Your task to perform on an android device: snooze an email in the gmail app Image 0: 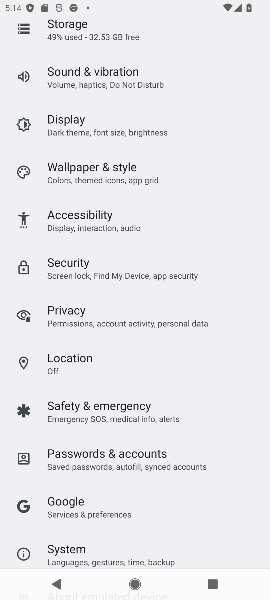
Step 0: press home button
Your task to perform on an android device: snooze an email in the gmail app Image 1: 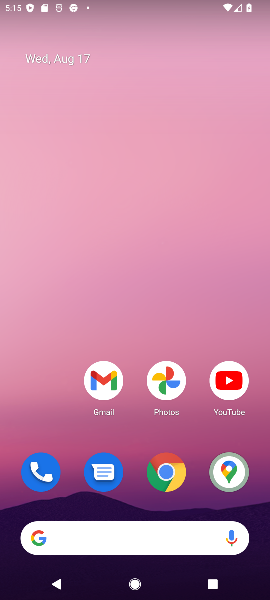
Step 1: click (108, 391)
Your task to perform on an android device: snooze an email in the gmail app Image 2: 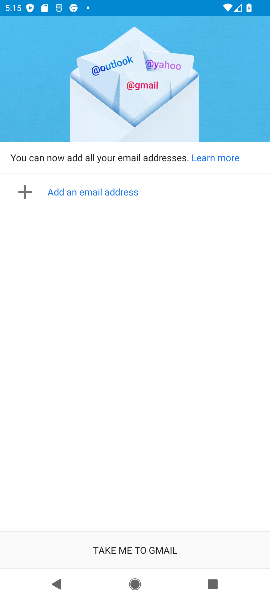
Step 2: task complete